Your task to perform on an android device: Search for seafood restaurants on Google Maps Image 0: 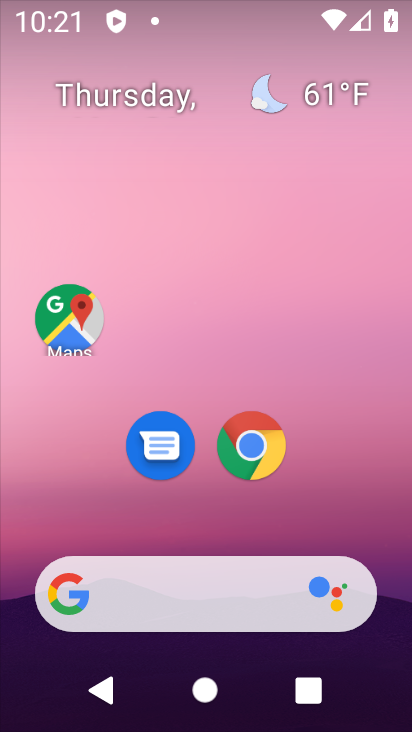
Step 0: click (77, 315)
Your task to perform on an android device: Search for seafood restaurants on Google Maps Image 1: 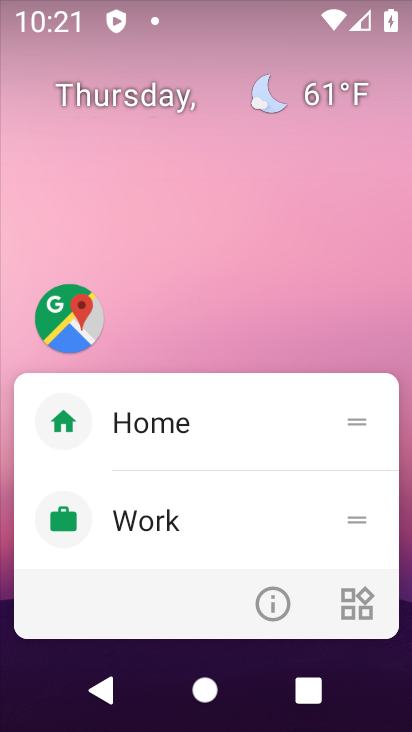
Step 1: click (69, 330)
Your task to perform on an android device: Search for seafood restaurants on Google Maps Image 2: 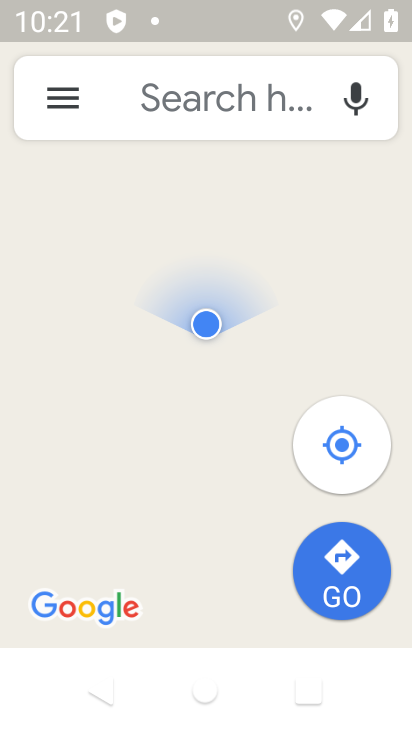
Step 2: click (162, 97)
Your task to perform on an android device: Search for seafood restaurants on Google Maps Image 3: 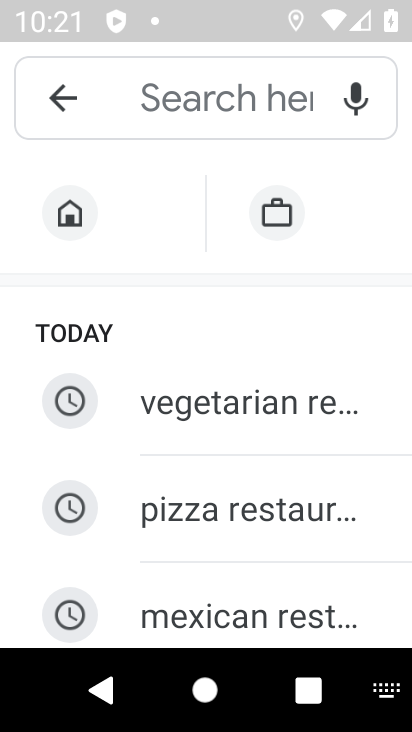
Step 3: type "seafood restaurants"
Your task to perform on an android device: Search for seafood restaurants on Google Maps Image 4: 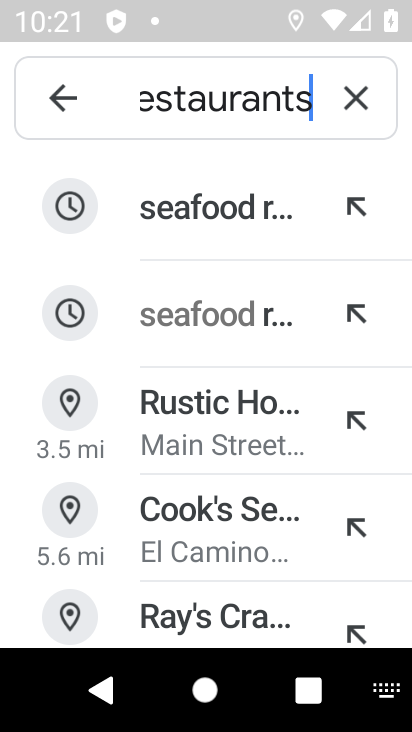
Step 4: click (216, 216)
Your task to perform on an android device: Search for seafood restaurants on Google Maps Image 5: 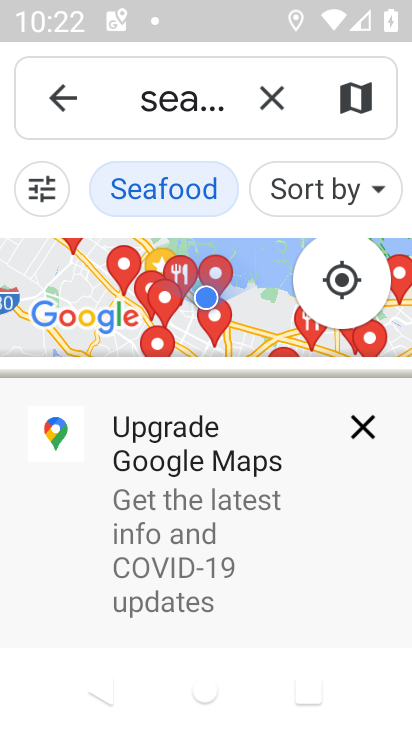
Step 5: click (356, 436)
Your task to perform on an android device: Search for seafood restaurants on Google Maps Image 6: 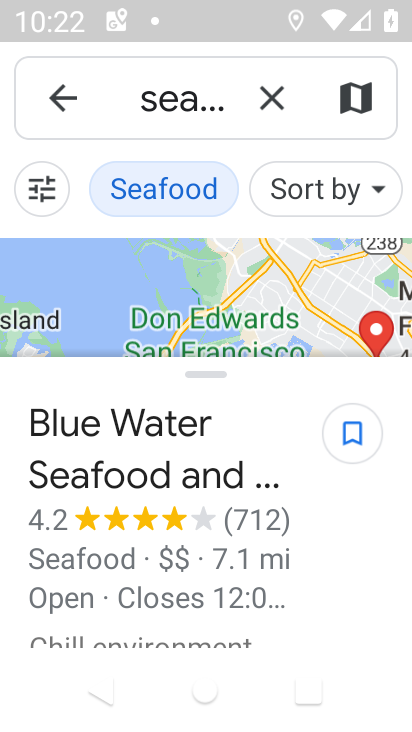
Step 6: task complete